Your task to perform on an android device: add a contact in the contacts app Image 0: 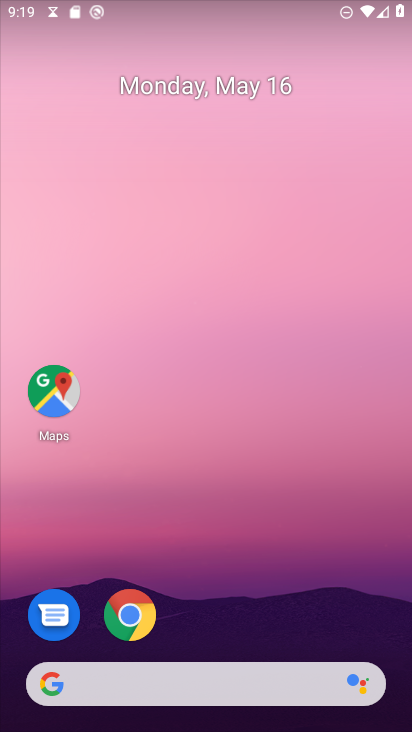
Step 0: drag from (58, 546) to (214, 151)
Your task to perform on an android device: add a contact in the contacts app Image 1: 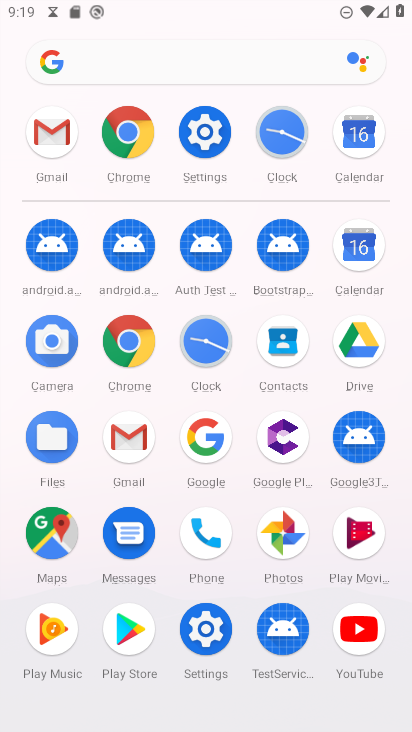
Step 1: click (211, 524)
Your task to perform on an android device: add a contact in the contacts app Image 2: 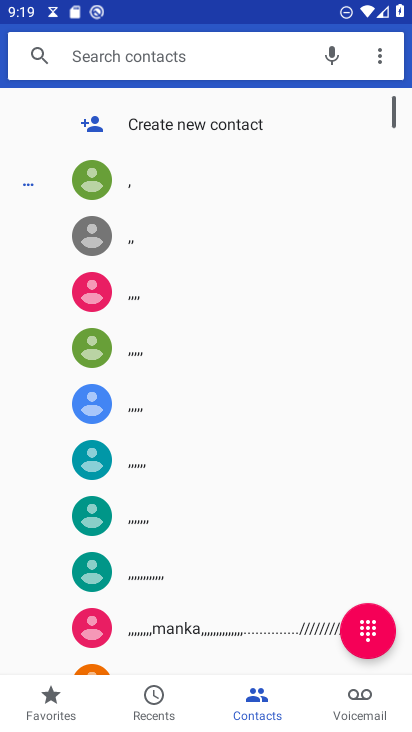
Step 2: click (255, 697)
Your task to perform on an android device: add a contact in the contacts app Image 3: 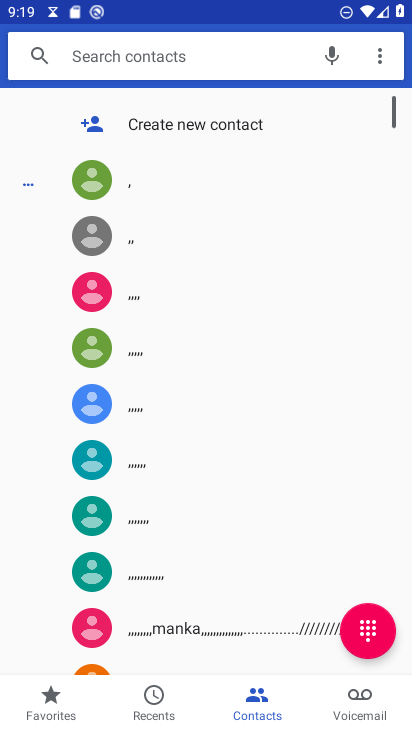
Step 3: click (142, 127)
Your task to perform on an android device: add a contact in the contacts app Image 4: 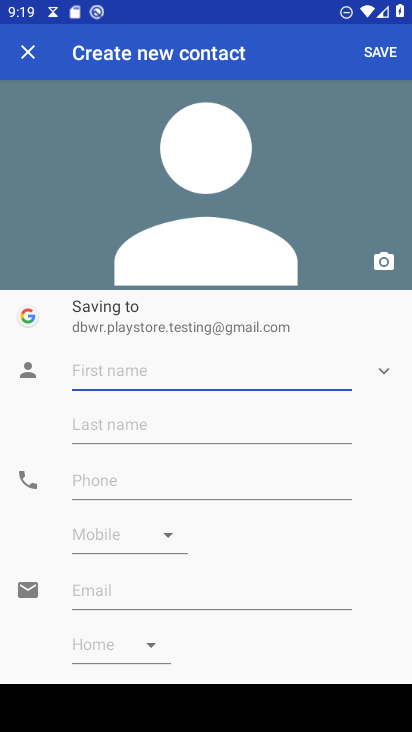
Step 4: click (211, 365)
Your task to perform on an android device: add a contact in the contacts app Image 5: 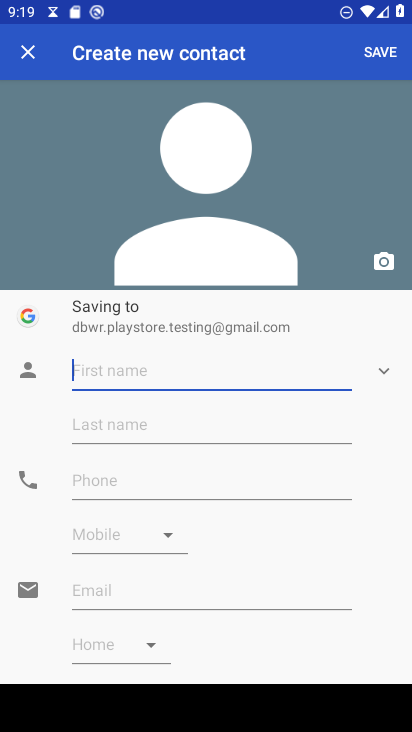
Step 5: type "vgfdse"
Your task to perform on an android device: add a contact in the contacts app Image 6: 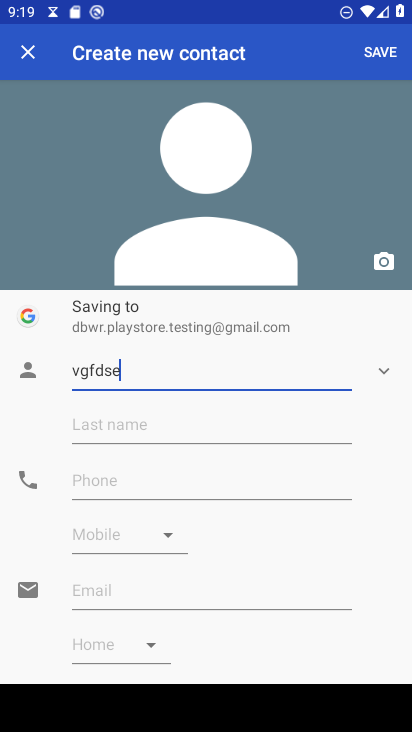
Step 6: type ""
Your task to perform on an android device: add a contact in the contacts app Image 7: 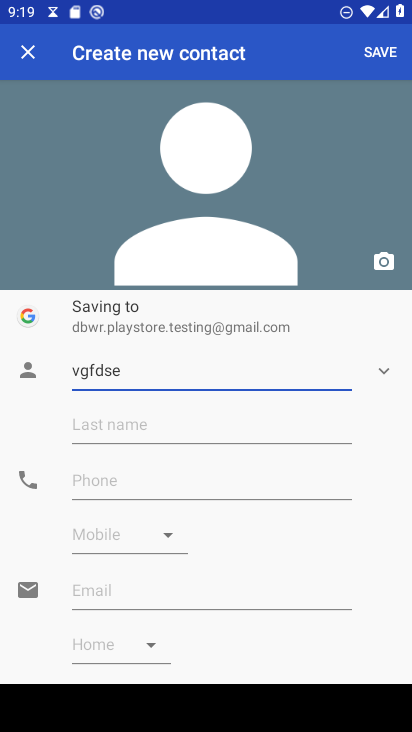
Step 7: click (359, 55)
Your task to perform on an android device: add a contact in the contacts app Image 8: 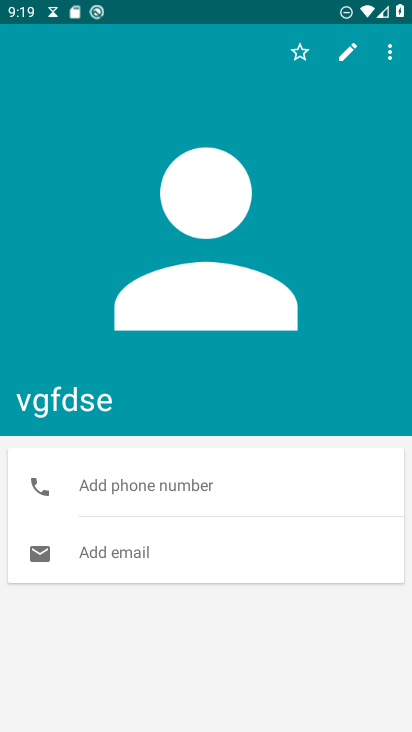
Step 8: task complete